Your task to perform on an android device: manage bookmarks in the chrome app Image 0: 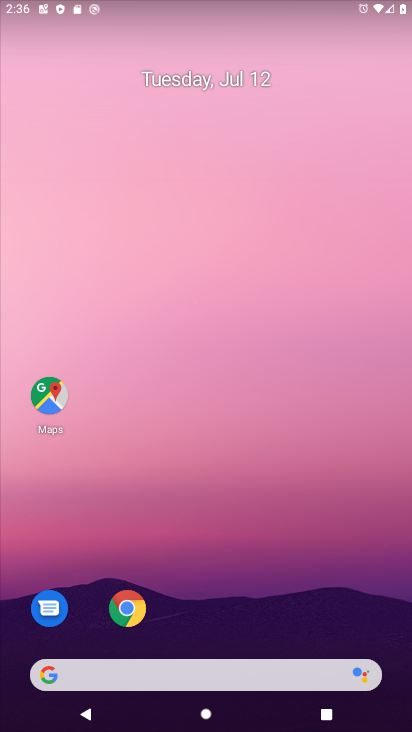
Step 0: drag from (274, 568) to (209, 31)
Your task to perform on an android device: manage bookmarks in the chrome app Image 1: 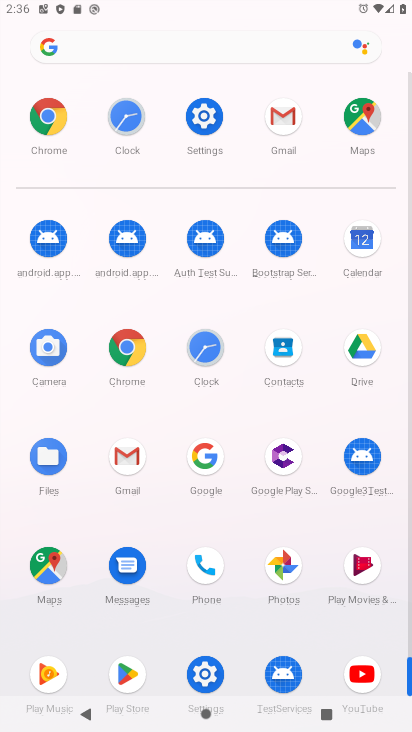
Step 1: click (131, 341)
Your task to perform on an android device: manage bookmarks in the chrome app Image 2: 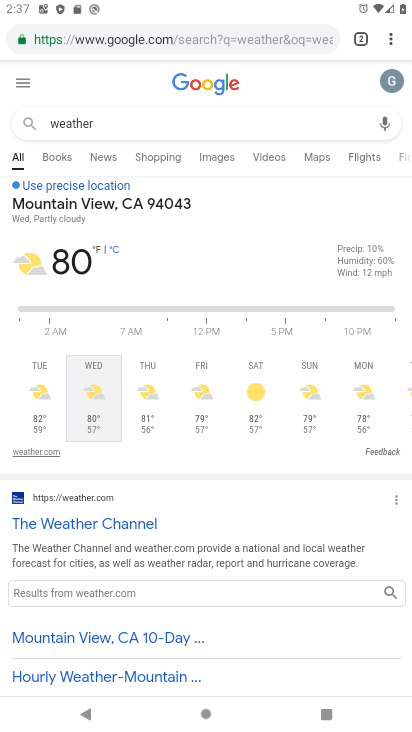
Step 2: drag from (395, 38) to (275, 182)
Your task to perform on an android device: manage bookmarks in the chrome app Image 3: 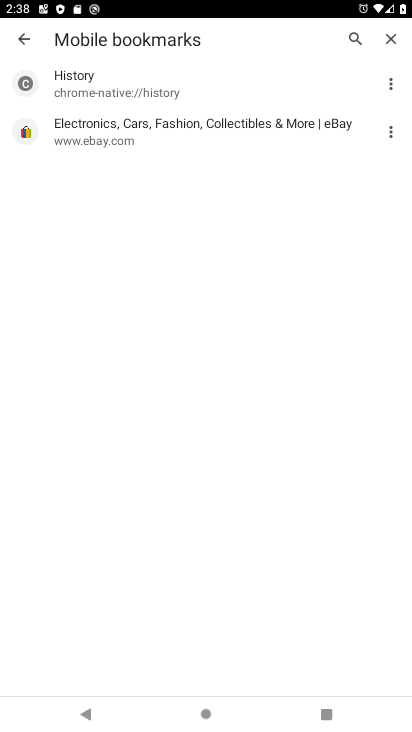
Step 3: drag from (289, 124) to (321, 330)
Your task to perform on an android device: manage bookmarks in the chrome app Image 4: 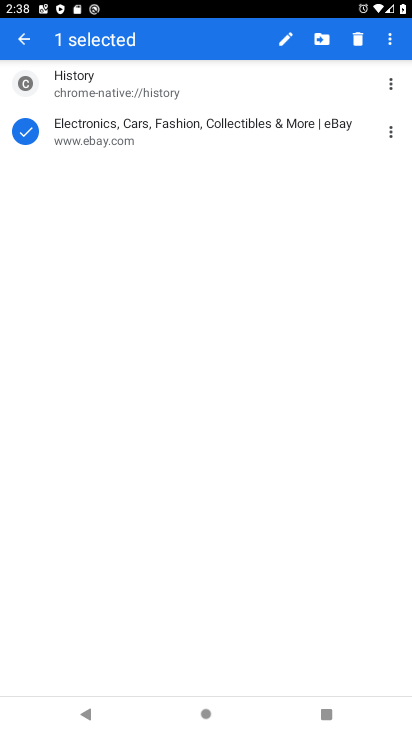
Step 4: click (359, 40)
Your task to perform on an android device: manage bookmarks in the chrome app Image 5: 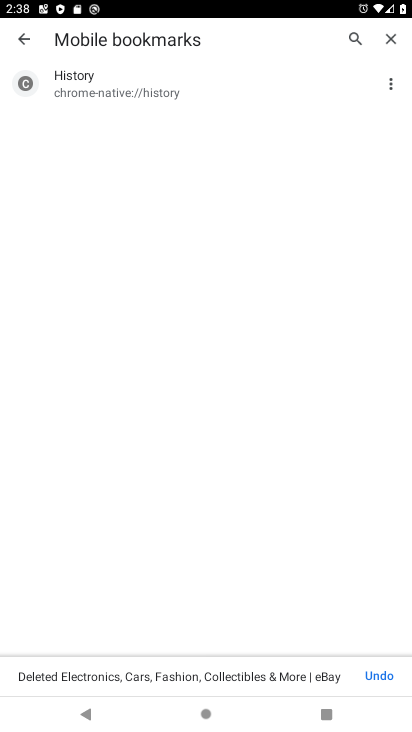
Step 5: task complete